Your task to perform on an android device: Search for "macbook pro 15 inch" on amazon, select the first entry, add it to the cart, then select checkout. Image 0: 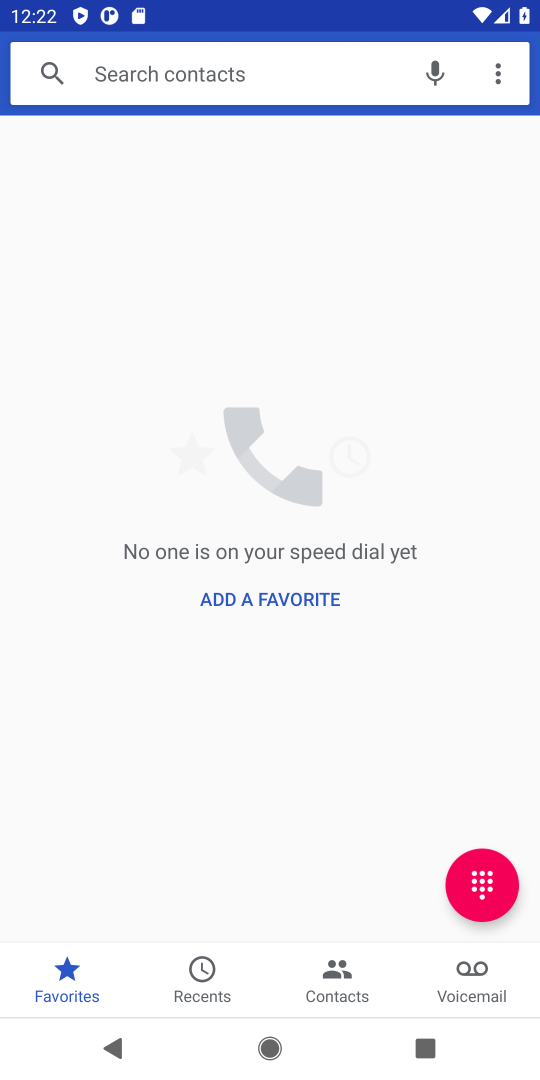
Step 0: press home button
Your task to perform on an android device: Search for "macbook pro 15 inch" on amazon, select the first entry, add it to the cart, then select checkout. Image 1: 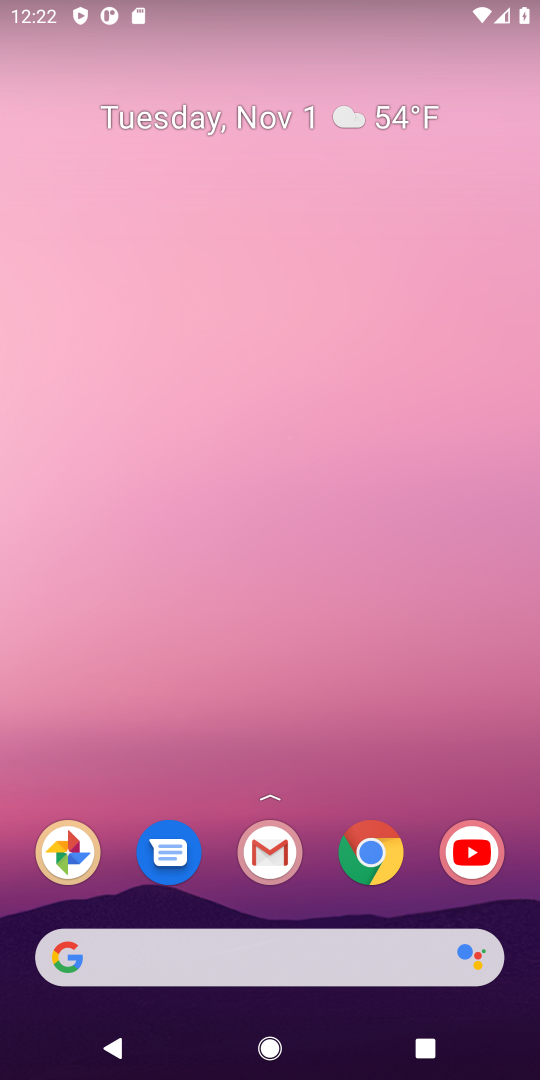
Step 1: click (376, 863)
Your task to perform on an android device: Search for "macbook pro 15 inch" on amazon, select the first entry, add it to the cart, then select checkout. Image 2: 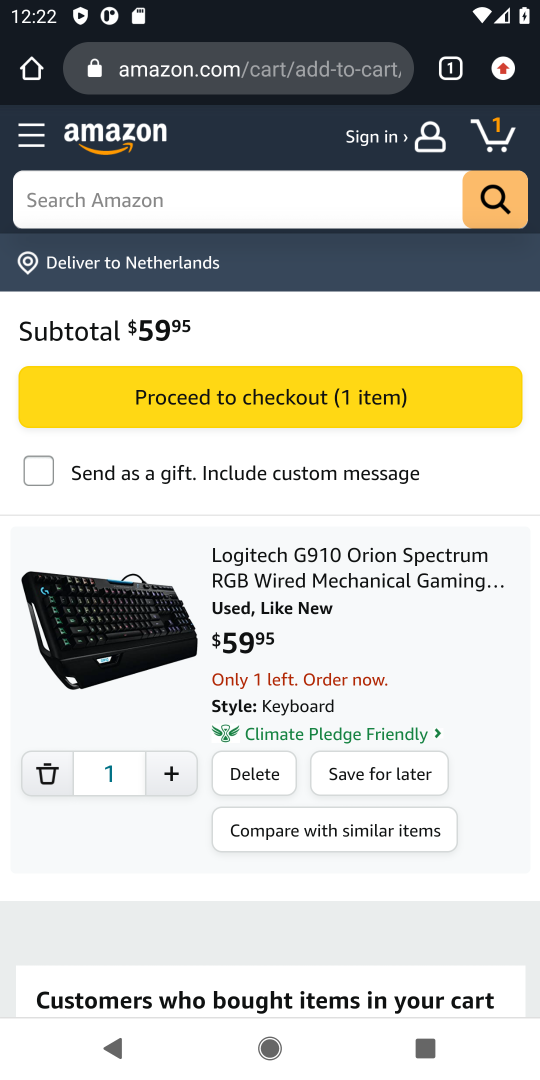
Step 2: click (254, 50)
Your task to perform on an android device: Search for "macbook pro 15 inch" on amazon, select the first entry, add it to the cart, then select checkout. Image 3: 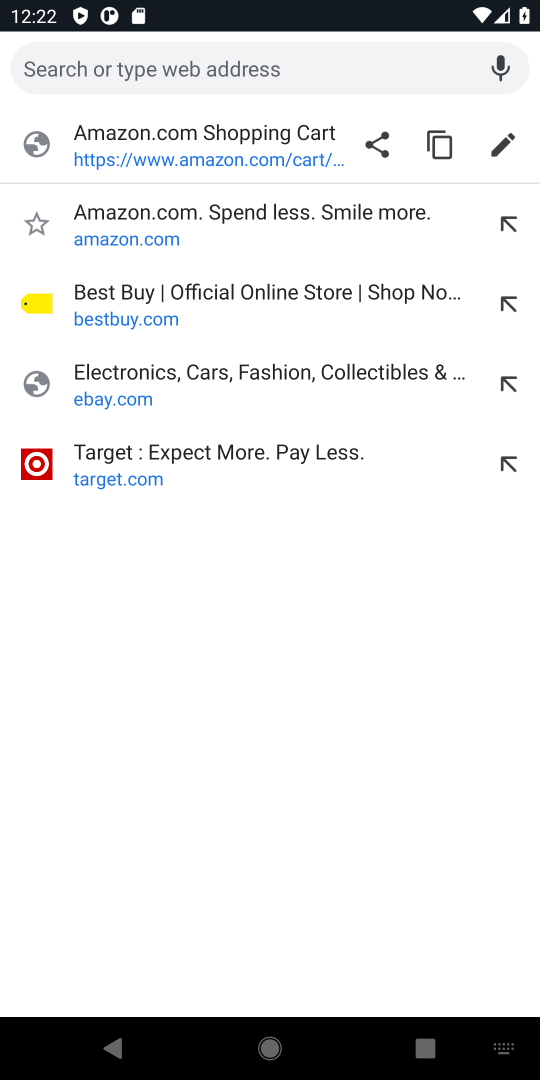
Step 3: type "amazon"
Your task to perform on an android device: Search for "macbook pro 15 inch" on amazon, select the first entry, add it to the cart, then select checkout. Image 4: 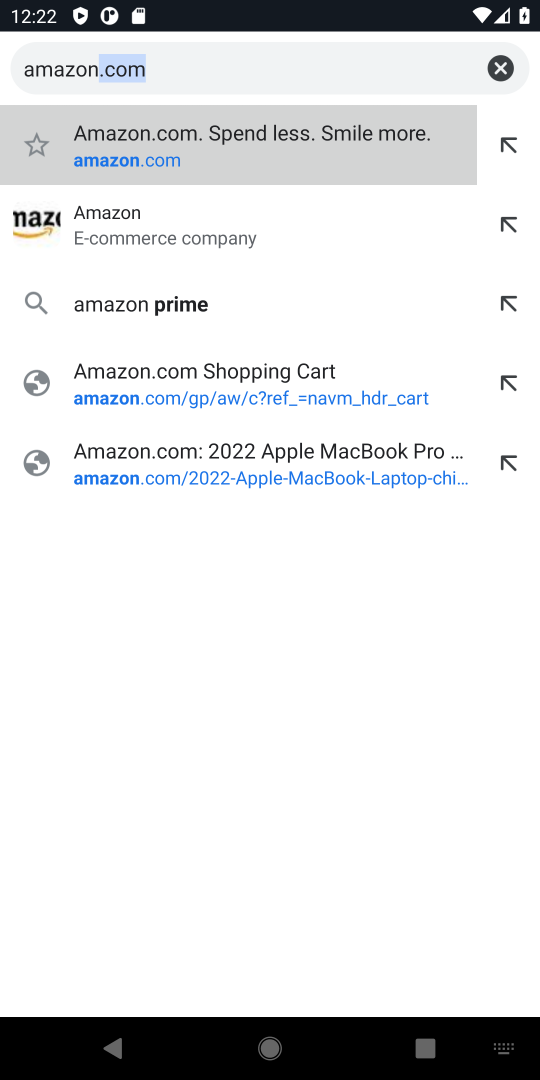
Step 4: type ""
Your task to perform on an android device: Search for "macbook pro 15 inch" on amazon, select the first entry, add it to the cart, then select checkout. Image 5: 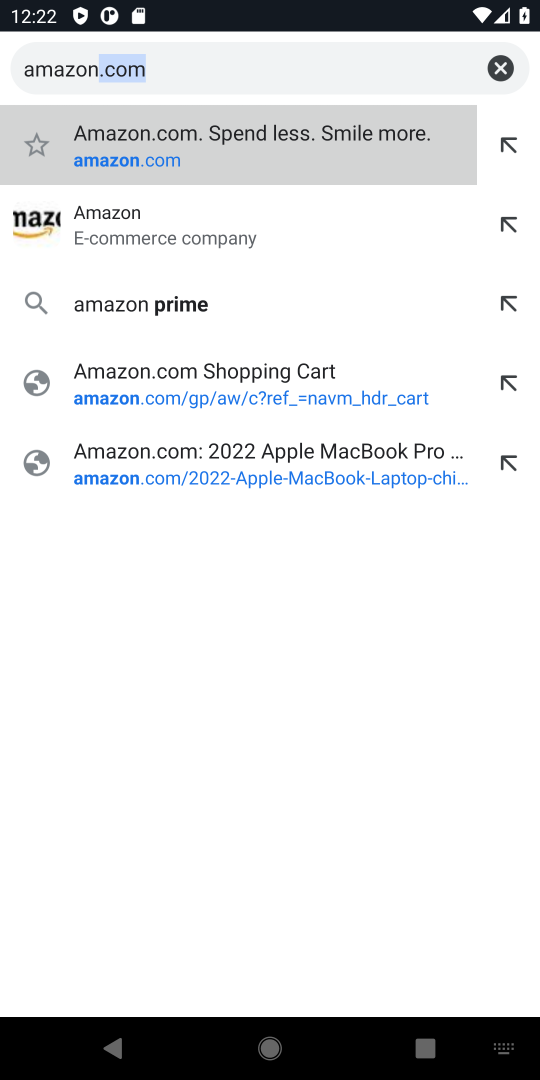
Step 5: press enter
Your task to perform on an android device: Search for "macbook pro 15 inch" on amazon, select the first entry, add it to the cart, then select checkout. Image 6: 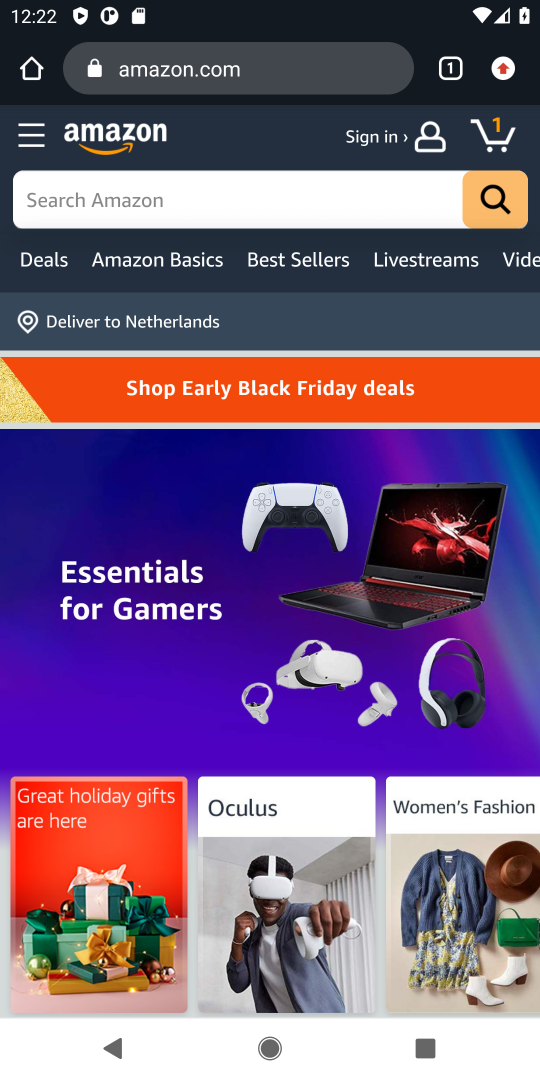
Step 6: click (285, 200)
Your task to perform on an android device: Search for "macbook pro 15 inch" on amazon, select the first entry, add it to the cart, then select checkout. Image 7: 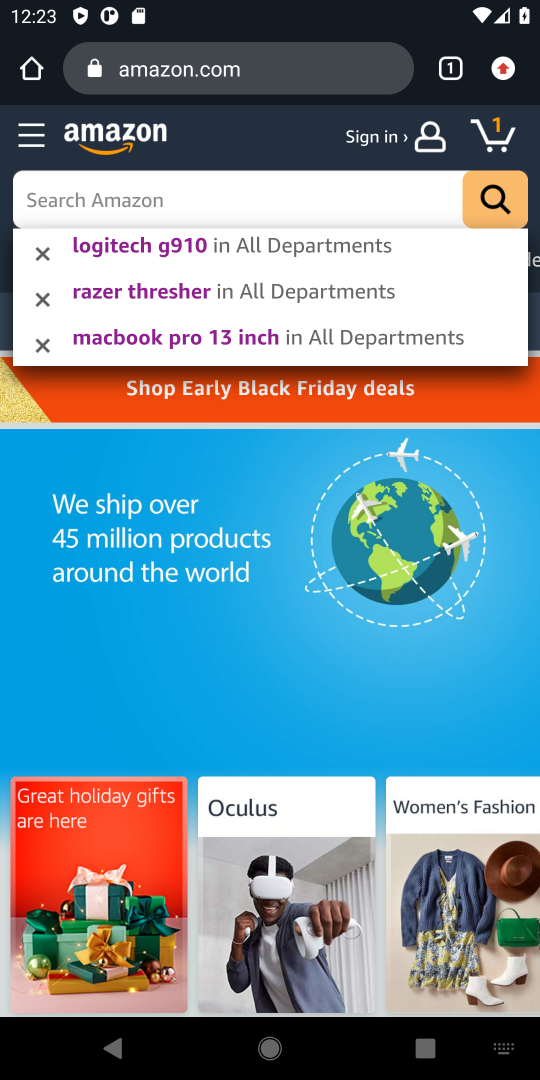
Step 7: type "macbook pro 15 inch"
Your task to perform on an android device: Search for "macbook pro 15 inch" on amazon, select the first entry, add it to the cart, then select checkout. Image 8: 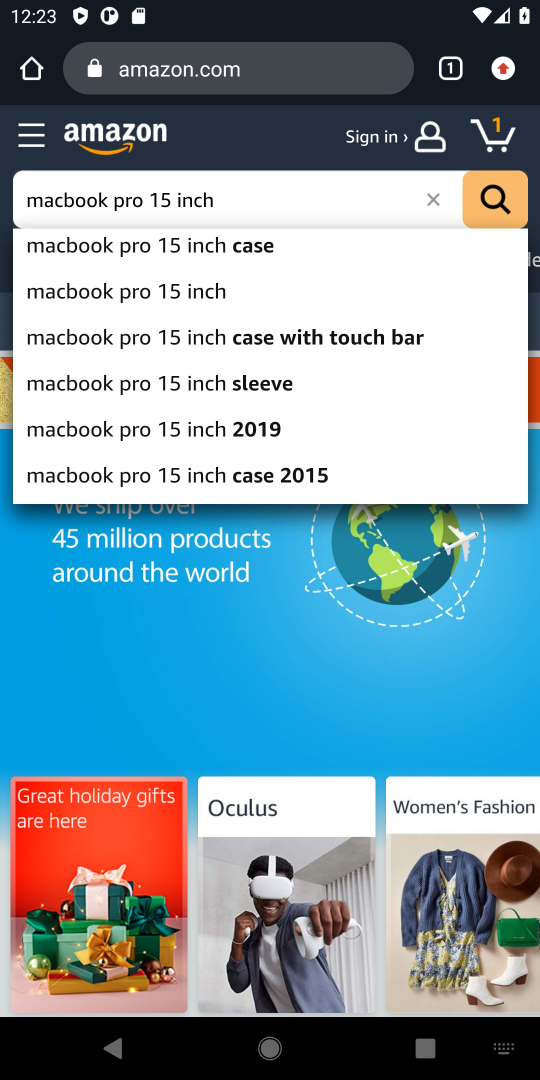
Step 8: press enter
Your task to perform on an android device: Search for "macbook pro 15 inch" on amazon, select the first entry, add it to the cart, then select checkout. Image 9: 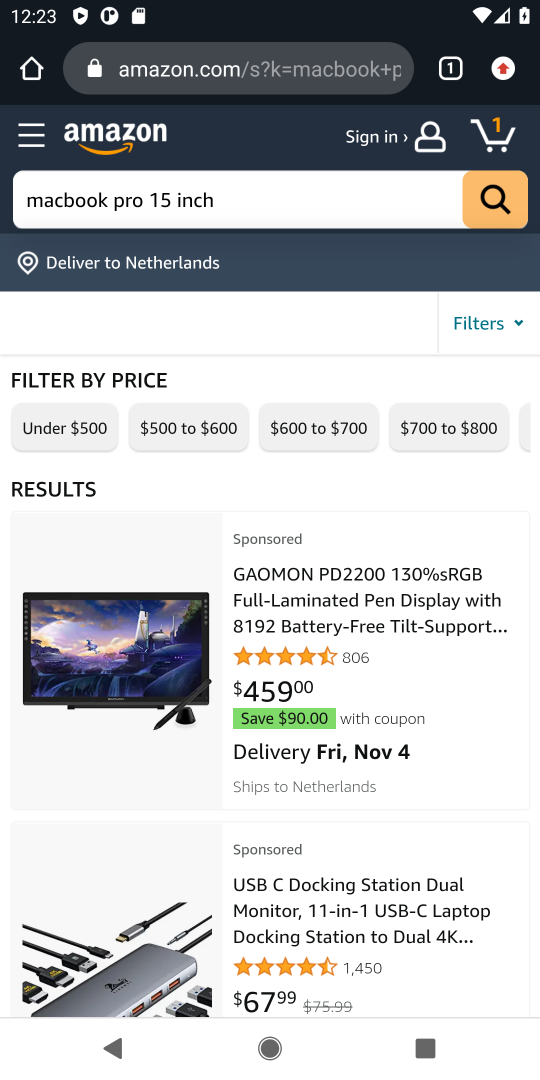
Step 9: click (489, 220)
Your task to perform on an android device: Search for "macbook pro 15 inch" on amazon, select the first entry, add it to the cart, then select checkout. Image 10: 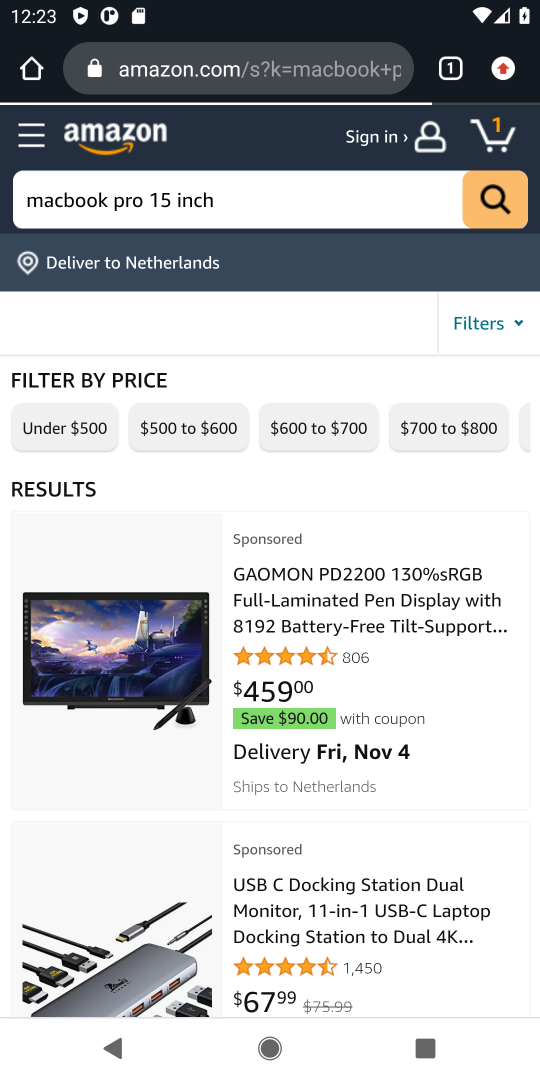
Step 10: drag from (358, 942) to (349, 466)
Your task to perform on an android device: Search for "macbook pro 15 inch" on amazon, select the first entry, add it to the cart, then select checkout. Image 11: 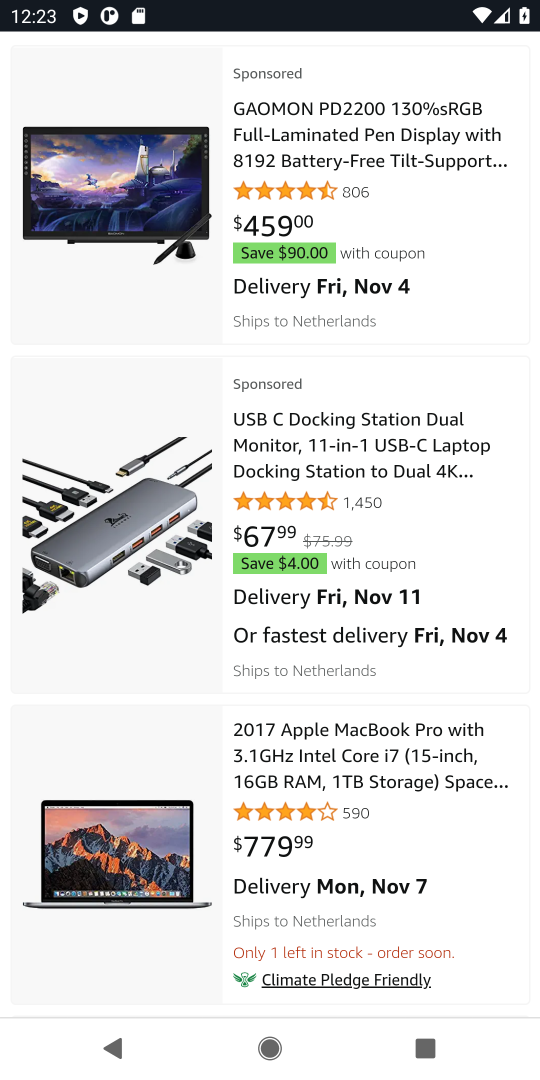
Step 11: click (377, 774)
Your task to perform on an android device: Search for "macbook pro 15 inch" on amazon, select the first entry, add it to the cart, then select checkout. Image 12: 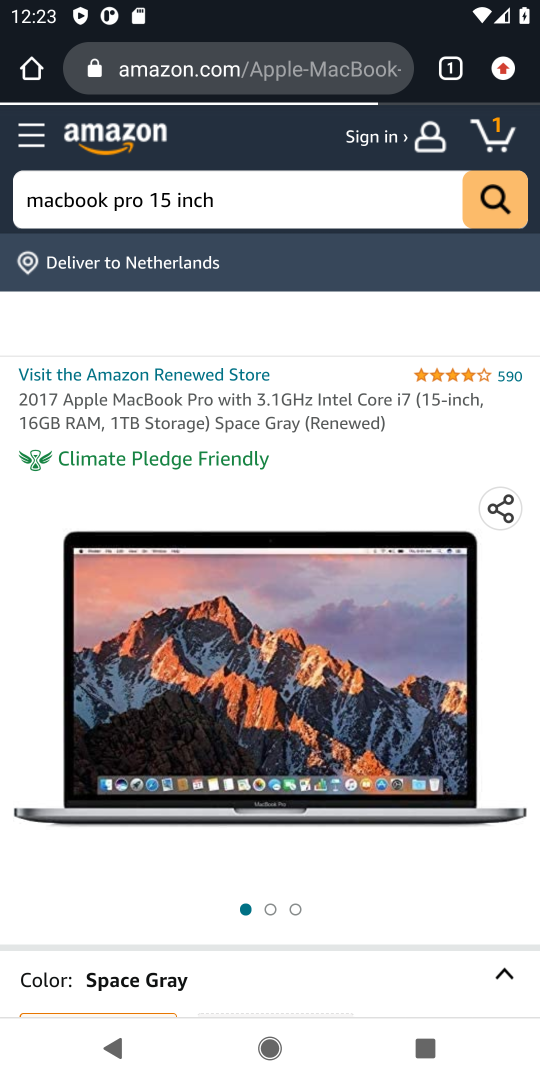
Step 12: drag from (388, 917) to (326, 378)
Your task to perform on an android device: Search for "macbook pro 15 inch" on amazon, select the first entry, add it to the cart, then select checkout. Image 13: 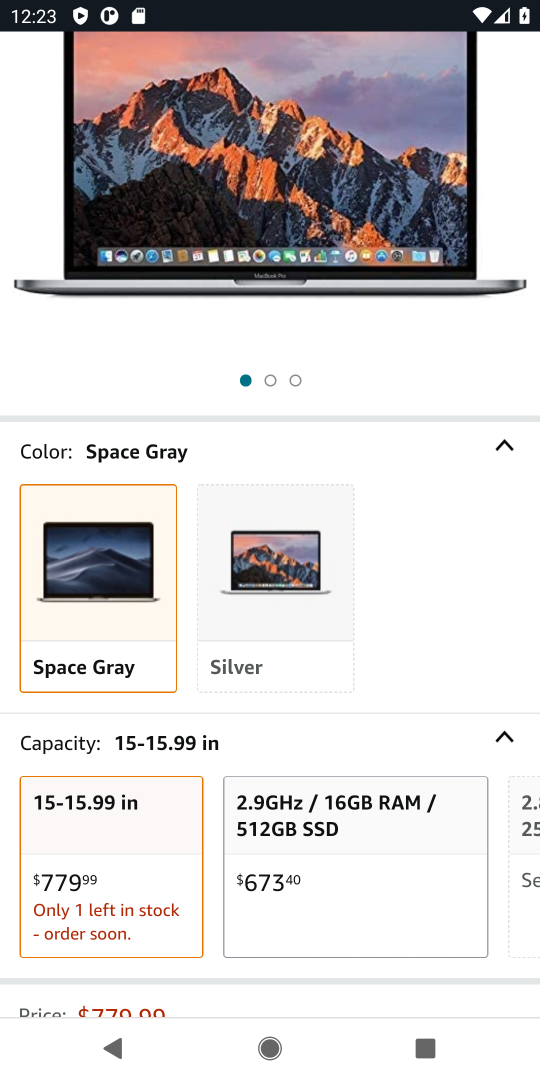
Step 13: drag from (314, 903) to (297, 462)
Your task to perform on an android device: Search for "macbook pro 15 inch" on amazon, select the first entry, add it to the cart, then select checkout. Image 14: 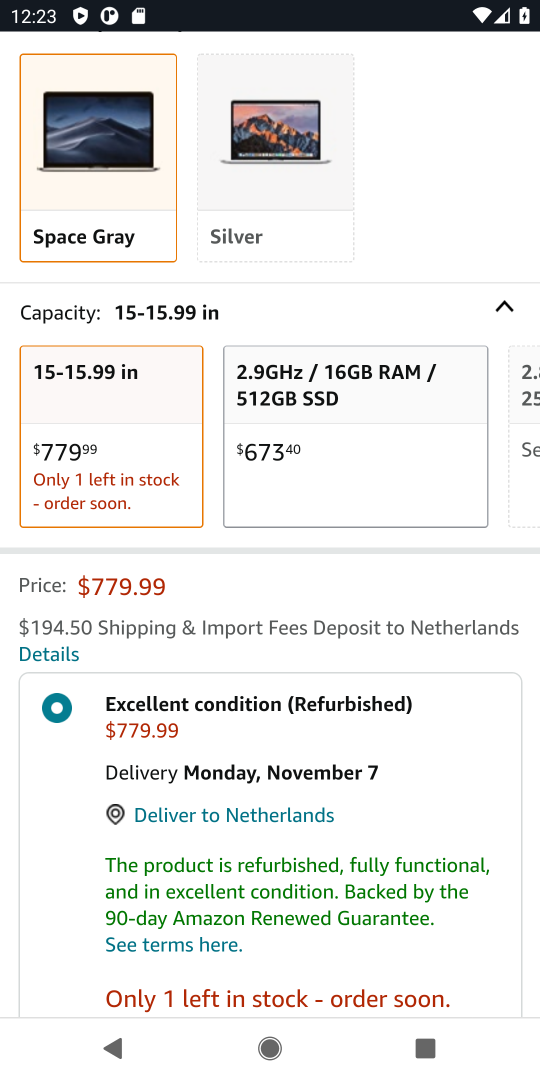
Step 14: drag from (295, 854) to (249, 533)
Your task to perform on an android device: Search for "macbook pro 15 inch" on amazon, select the first entry, add it to the cart, then select checkout. Image 15: 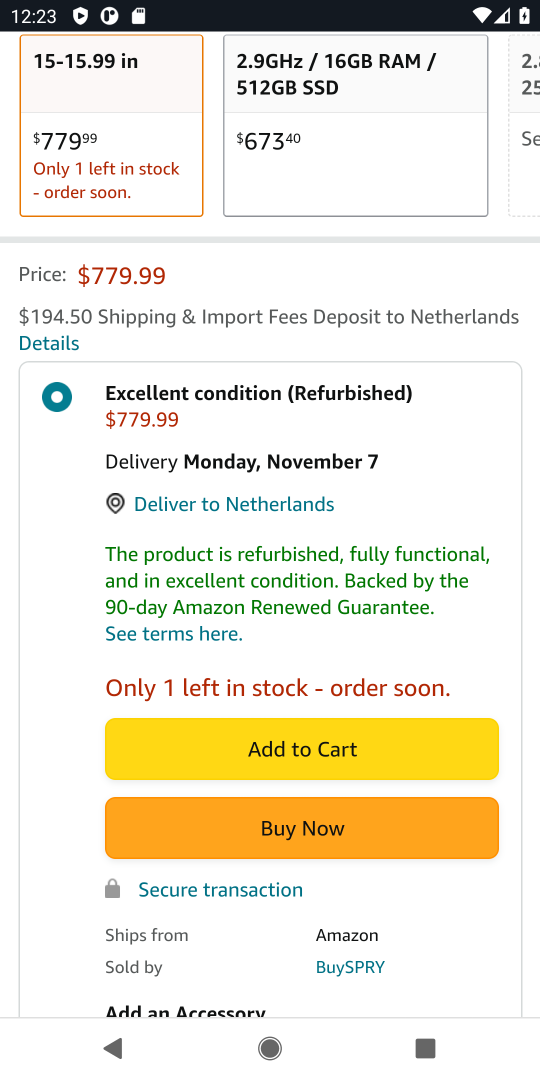
Step 15: click (345, 757)
Your task to perform on an android device: Search for "macbook pro 15 inch" on amazon, select the first entry, add it to the cart, then select checkout. Image 16: 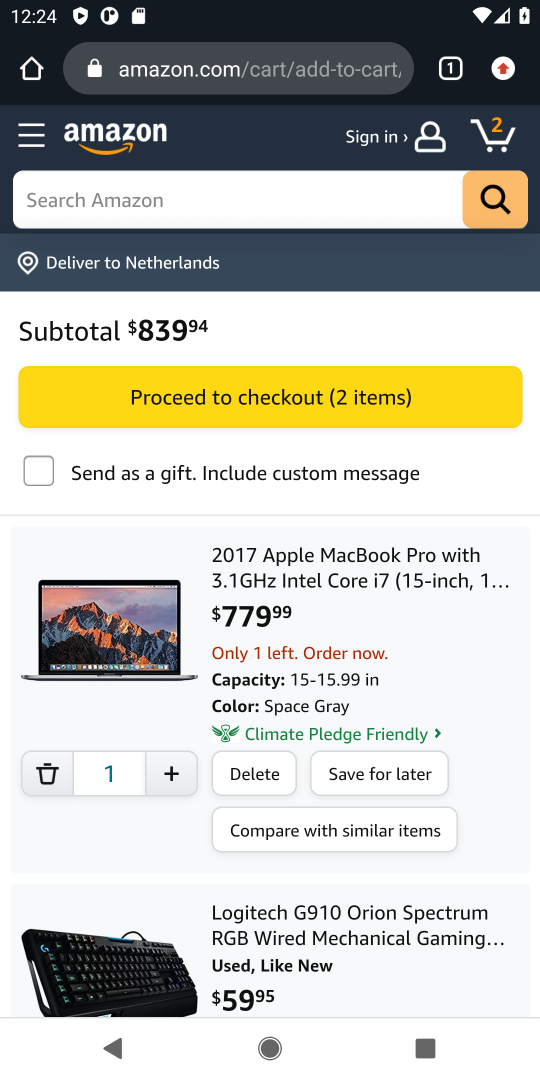
Step 16: click (350, 382)
Your task to perform on an android device: Search for "macbook pro 15 inch" on amazon, select the first entry, add it to the cart, then select checkout. Image 17: 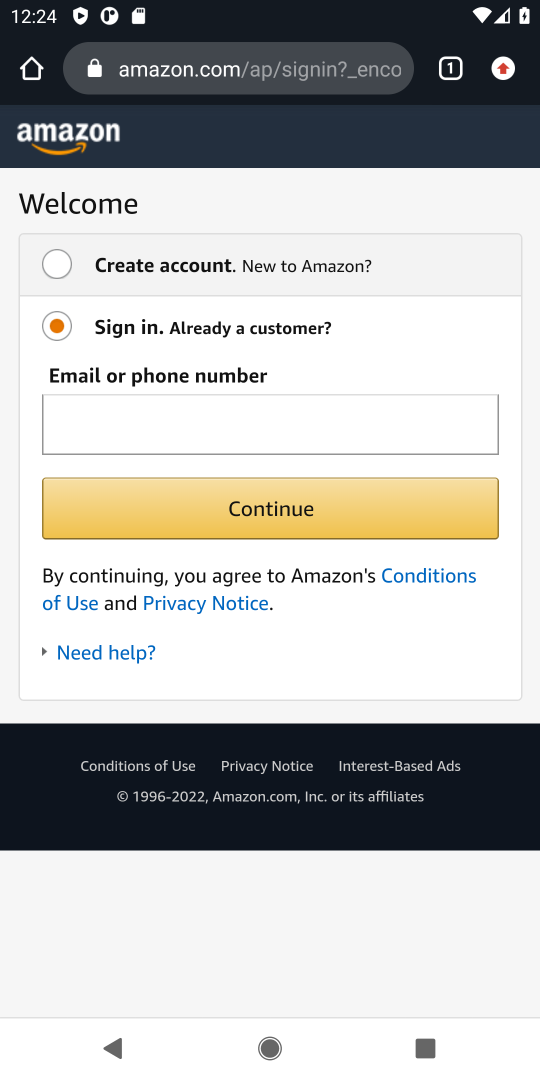
Step 17: task complete